Your task to perform on an android device: Open the web browser Image 0: 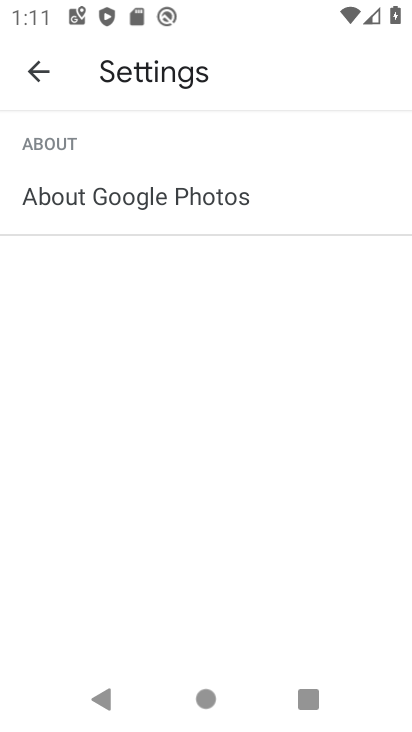
Step 0: press home button
Your task to perform on an android device: Open the web browser Image 1: 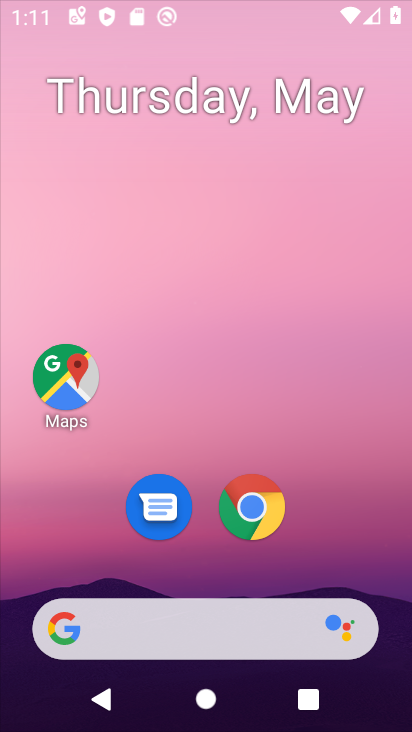
Step 1: drag from (203, 669) to (242, 2)
Your task to perform on an android device: Open the web browser Image 2: 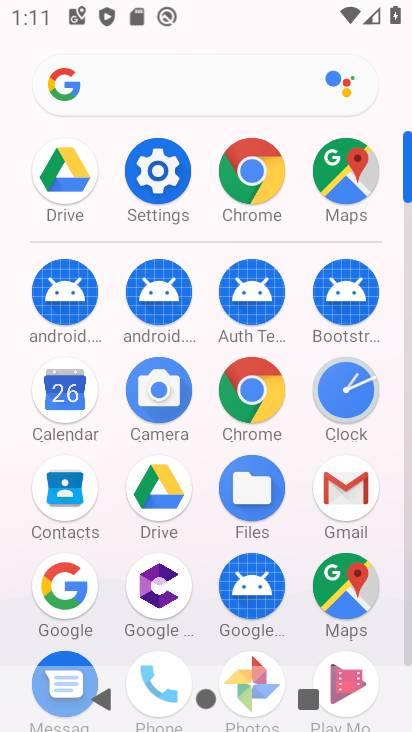
Step 2: click (248, 404)
Your task to perform on an android device: Open the web browser Image 3: 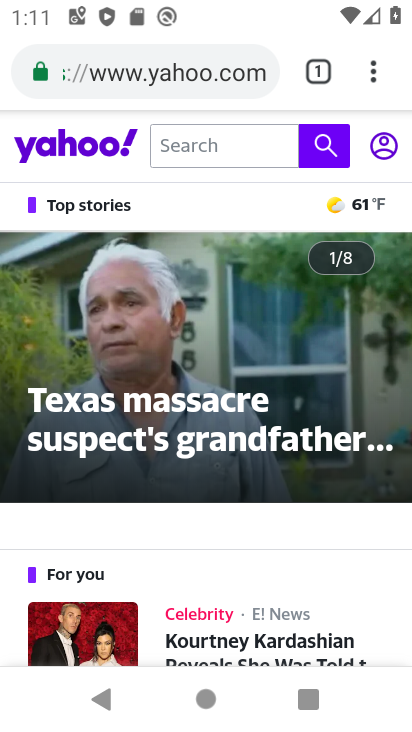
Step 3: task complete